Your task to perform on an android device: Open Youtube and go to the subscriptions tab Image 0: 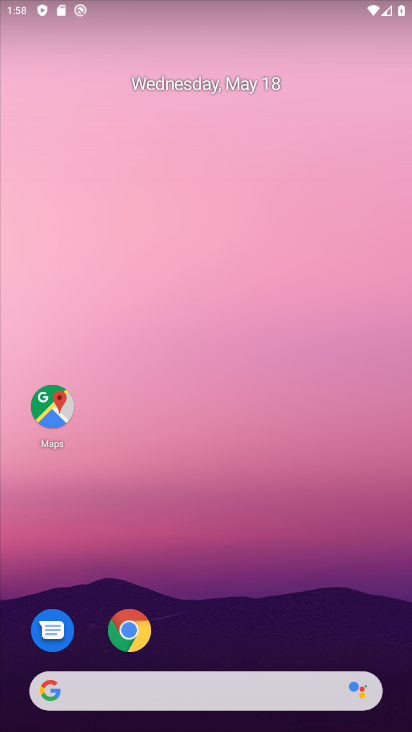
Step 0: drag from (215, 650) to (217, 177)
Your task to perform on an android device: Open Youtube and go to the subscriptions tab Image 1: 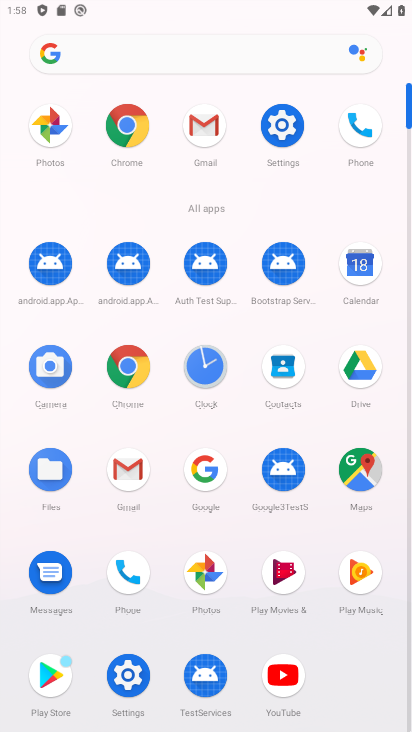
Step 1: click (282, 664)
Your task to perform on an android device: Open Youtube and go to the subscriptions tab Image 2: 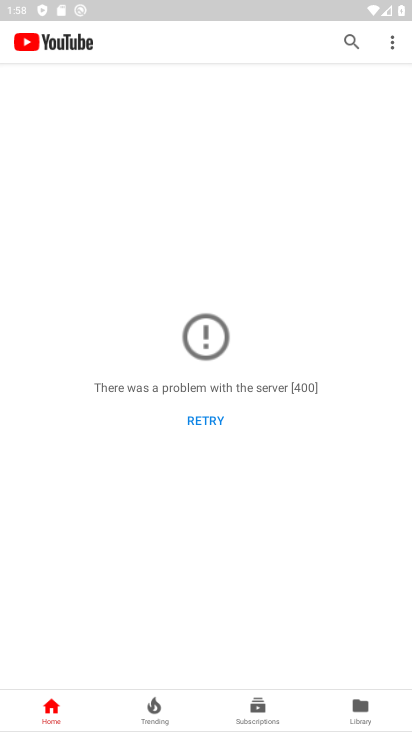
Step 2: click (259, 699)
Your task to perform on an android device: Open Youtube and go to the subscriptions tab Image 3: 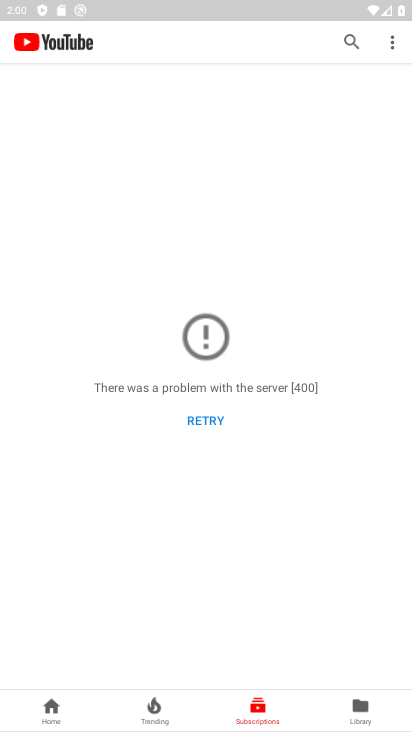
Step 3: task complete